Your task to perform on an android device: turn off picture-in-picture Image 0: 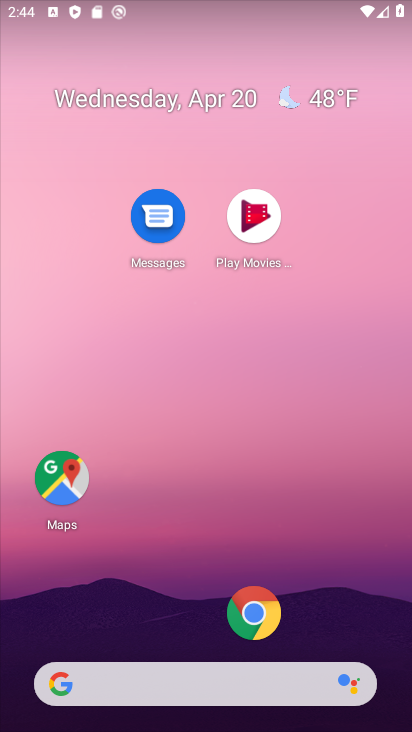
Step 0: drag from (205, 564) to (251, 197)
Your task to perform on an android device: turn off picture-in-picture Image 1: 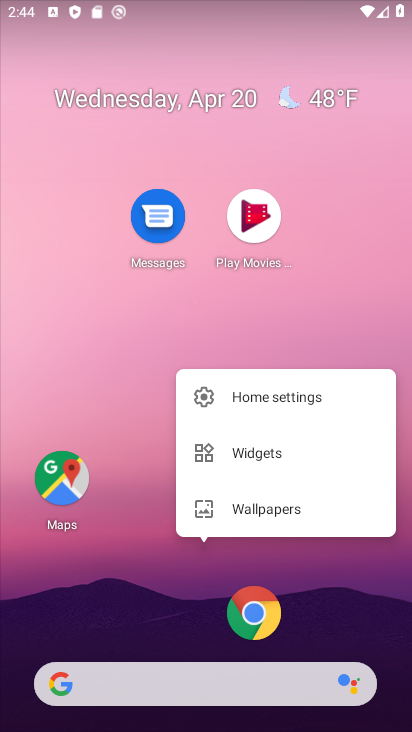
Step 1: click (114, 475)
Your task to perform on an android device: turn off picture-in-picture Image 2: 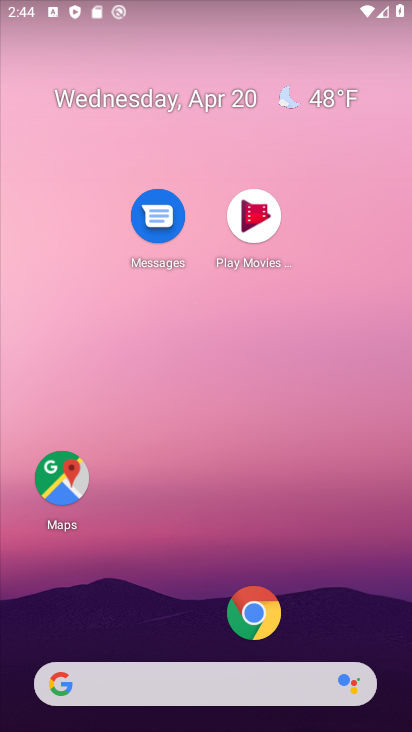
Step 2: drag from (179, 483) to (198, 58)
Your task to perform on an android device: turn off picture-in-picture Image 3: 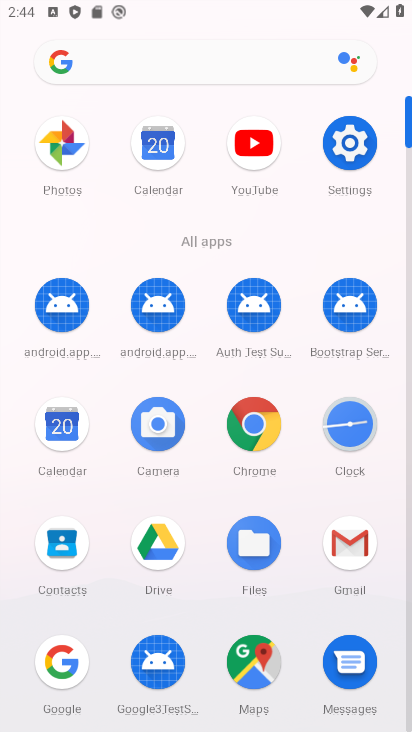
Step 3: click (361, 164)
Your task to perform on an android device: turn off picture-in-picture Image 4: 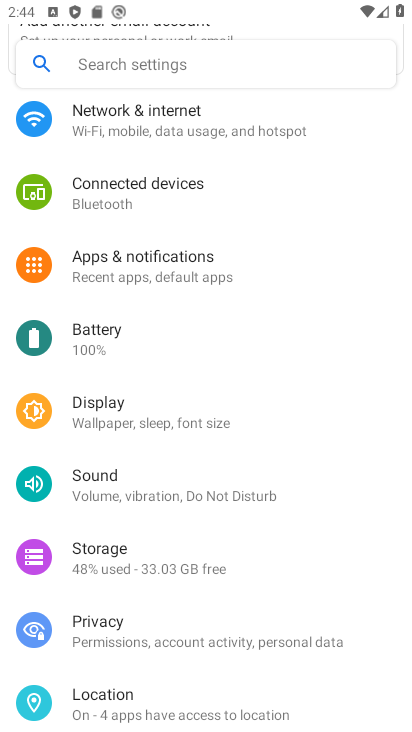
Step 4: click (196, 279)
Your task to perform on an android device: turn off picture-in-picture Image 5: 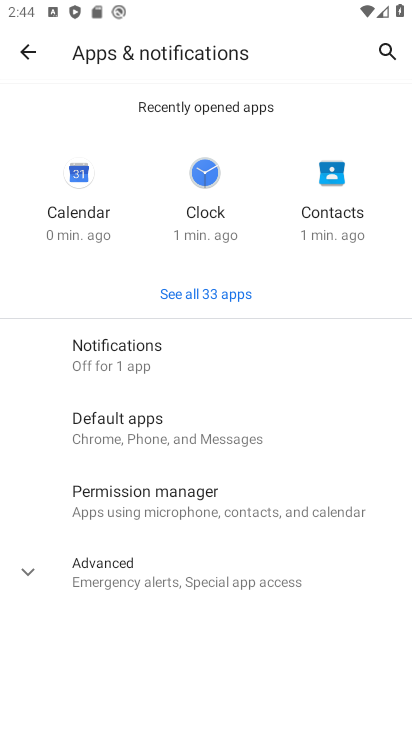
Step 5: click (197, 377)
Your task to perform on an android device: turn off picture-in-picture Image 6: 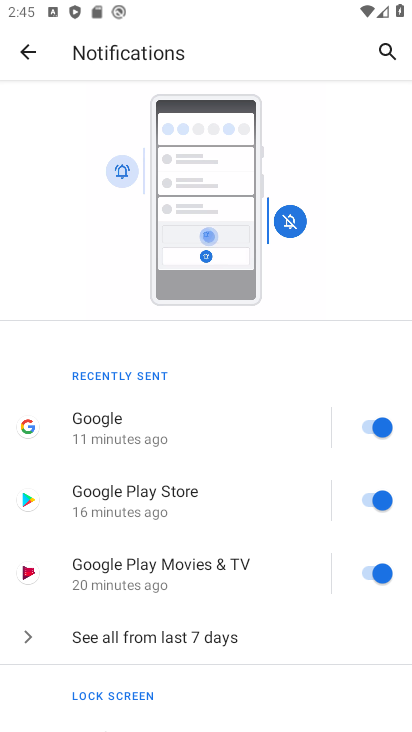
Step 6: drag from (213, 560) to (184, 75)
Your task to perform on an android device: turn off picture-in-picture Image 7: 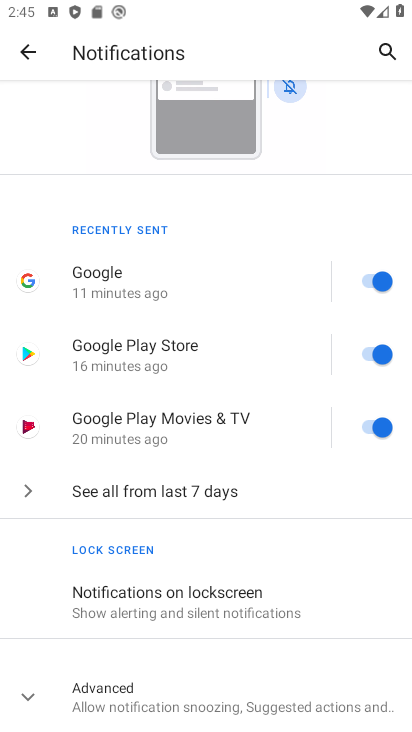
Step 7: drag from (176, 607) to (184, 427)
Your task to perform on an android device: turn off picture-in-picture Image 8: 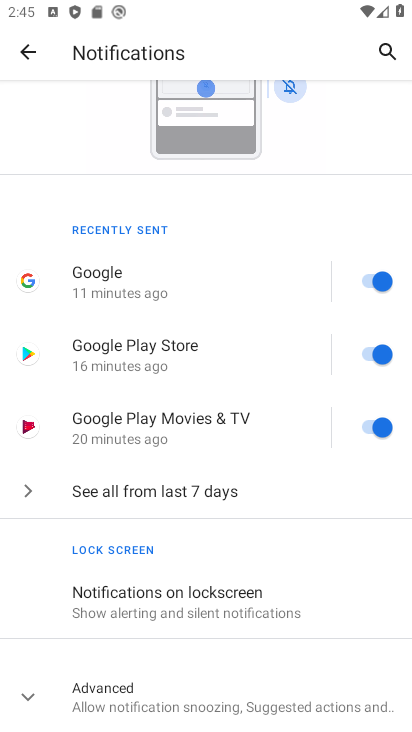
Step 8: click (124, 696)
Your task to perform on an android device: turn off picture-in-picture Image 9: 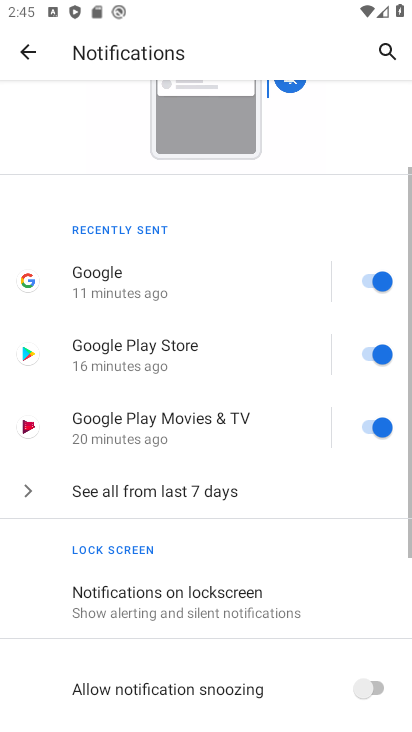
Step 9: drag from (124, 689) to (161, 395)
Your task to perform on an android device: turn off picture-in-picture Image 10: 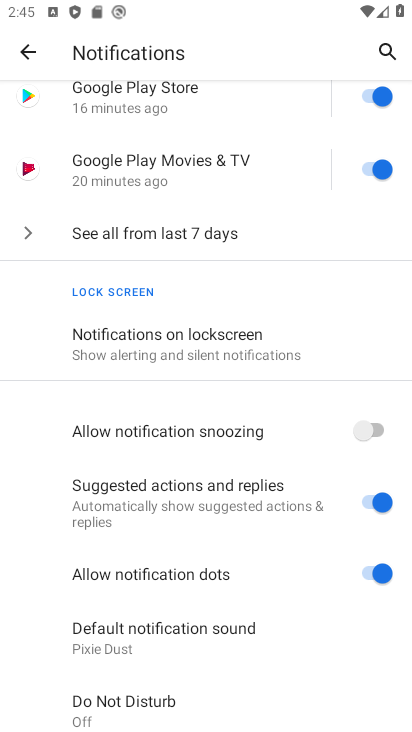
Step 10: drag from (192, 618) to (191, 399)
Your task to perform on an android device: turn off picture-in-picture Image 11: 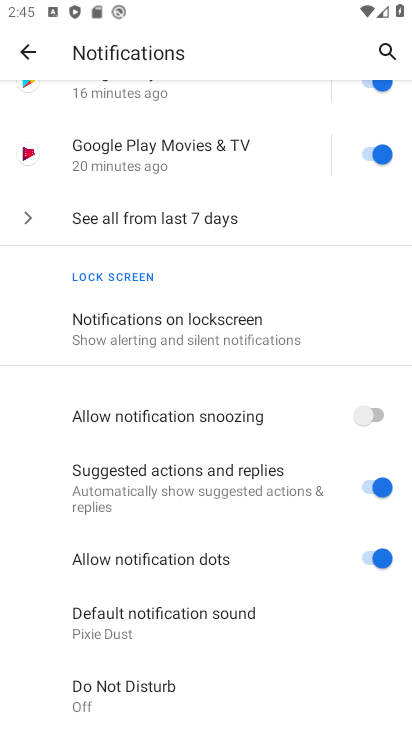
Step 11: click (30, 56)
Your task to perform on an android device: turn off picture-in-picture Image 12: 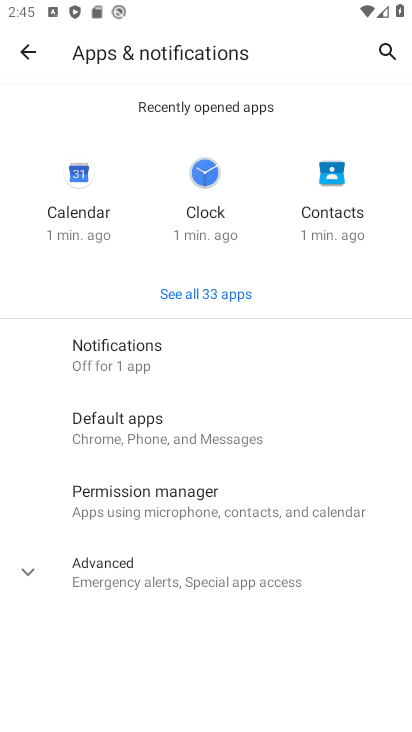
Step 12: click (182, 578)
Your task to perform on an android device: turn off picture-in-picture Image 13: 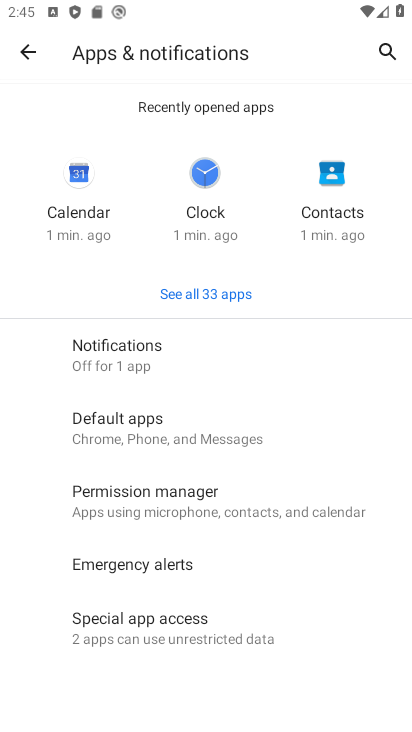
Step 13: drag from (189, 557) to (195, 310)
Your task to perform on an android device: turn off picture-in-picture Image 14: 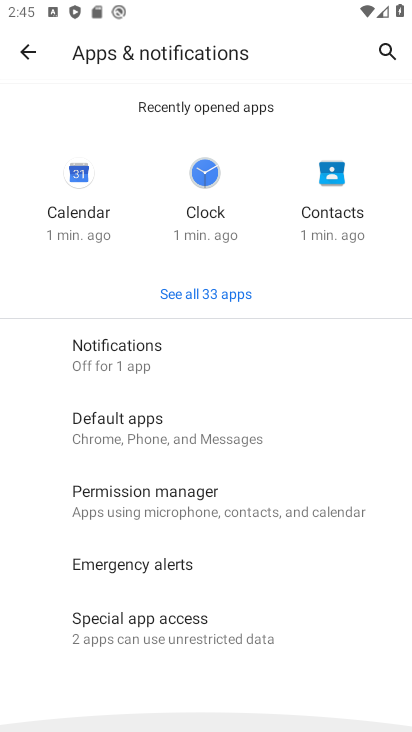
Step 14: click (235, 625)
Your task to perform on an android device: turn off picture-in-picture Image 15: 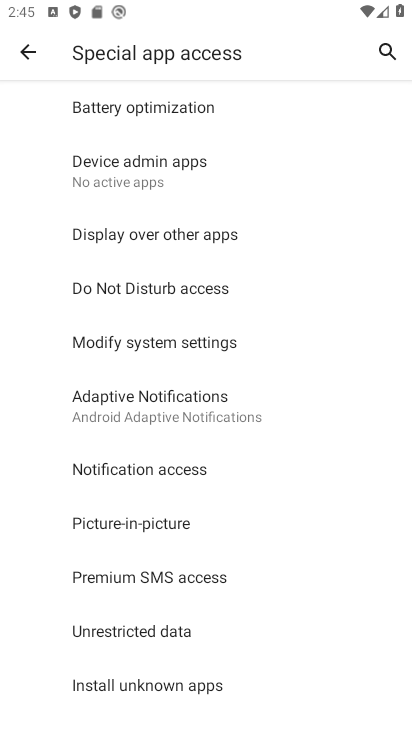
Step 15: click (200, 528)
Your task to perform on an android device: turn off picture-in-picture Image 16: 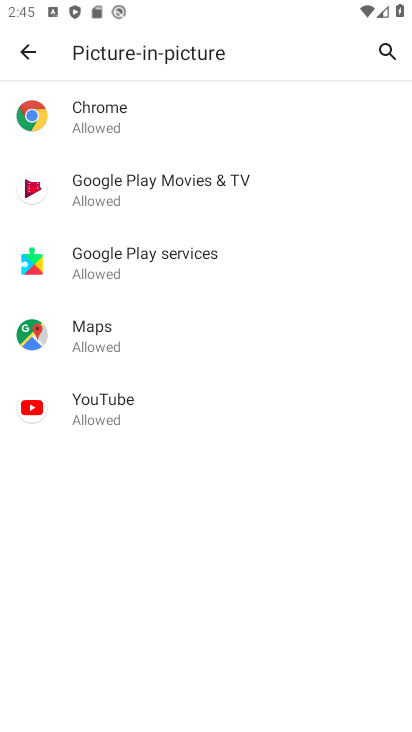
Step 16: click (179, 135)
Your task to perform on an android device: turn off picture-in-picture Image 17: 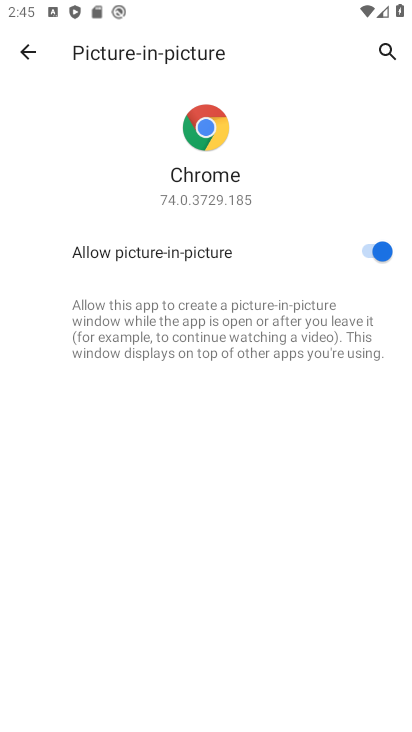
Step 17: click (374, 258)
Your task to perform on an android device: turn off picture-in-picture Image 18: 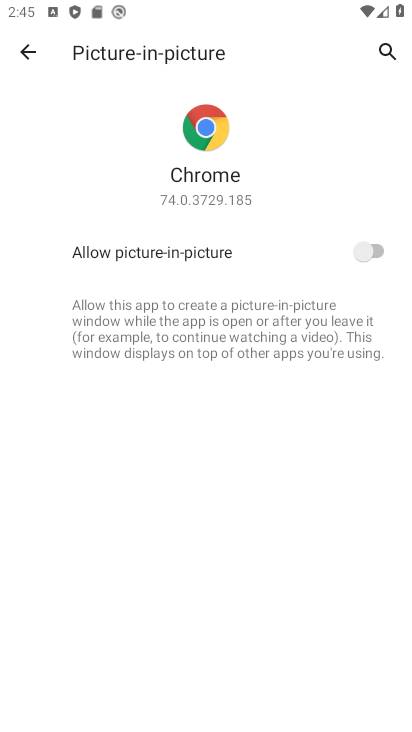
Step 18: task complete